Your task to perform on an android device: Open location settings Image 0: 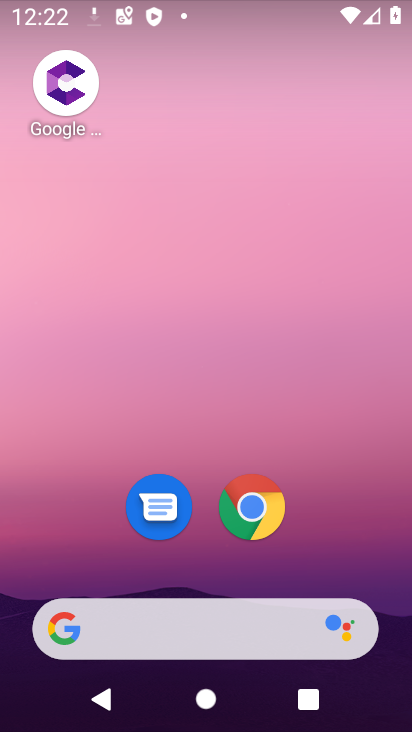
Step 0: drag from (206, 574) to (158, 75)
Your task to perform on an android device: Open location settings Image 1: 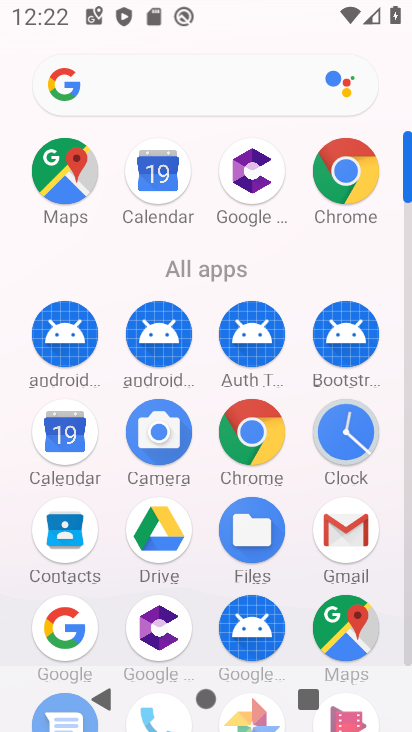
Step 1: drag from (189, 619) to (183, 220)
Your task to perform on an android device: Open location settings Image 2: 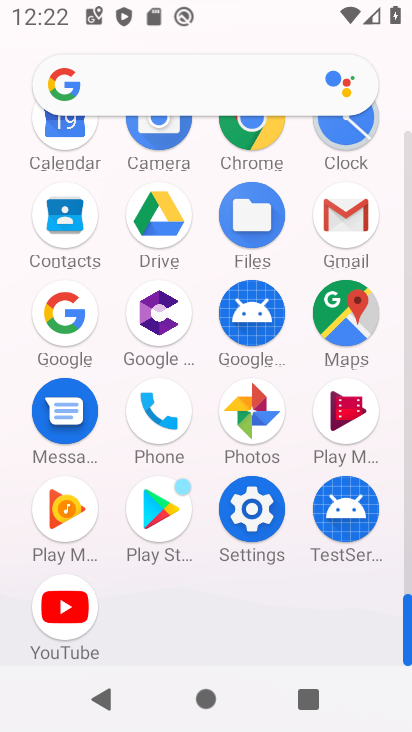
Step 2: click (257, 514)
Your task to perform on an android device: Open location settings Image 3: 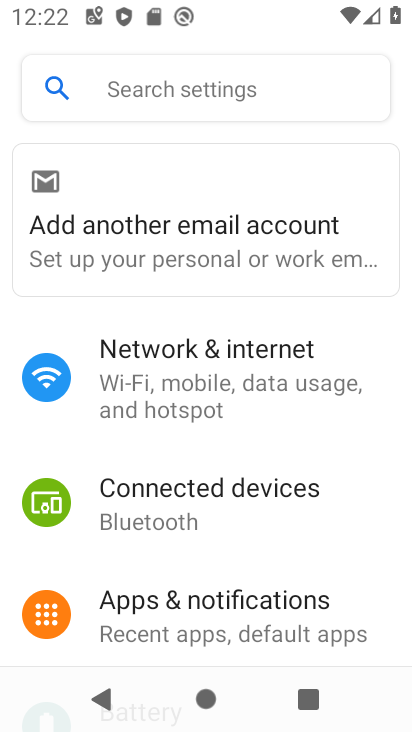
Step 3: drag from (230, 594) to (194, 79)
Your task to perform on an android device: Open location settings Image 4: 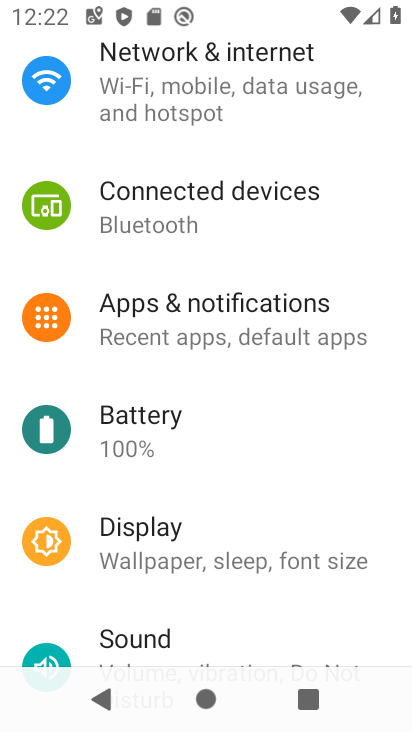
Step 4: drag from (243, 603) to (243, 159)
Your task to perform on an android device: Open location settings Image 5: 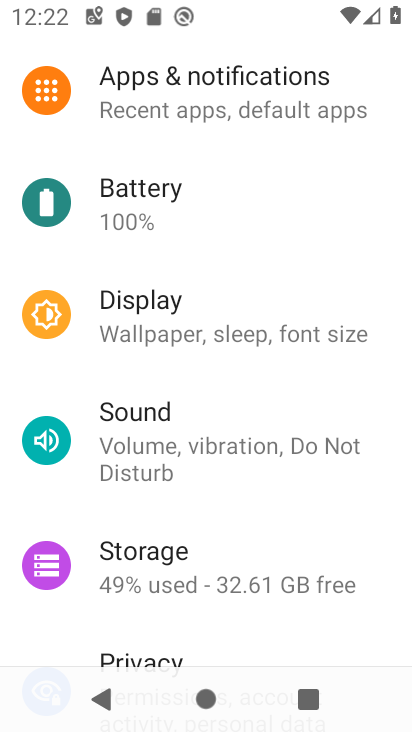
Step 5: drag from (241, 524) to (234, 77)
Your task to perform on an android device: Open location settings Image 6: 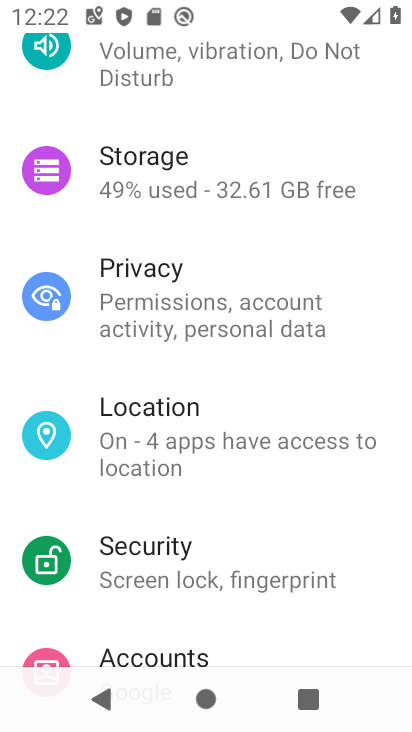
Step 6: click (232, 448)
Your task to perform on an android device: Open location settings Image 7: 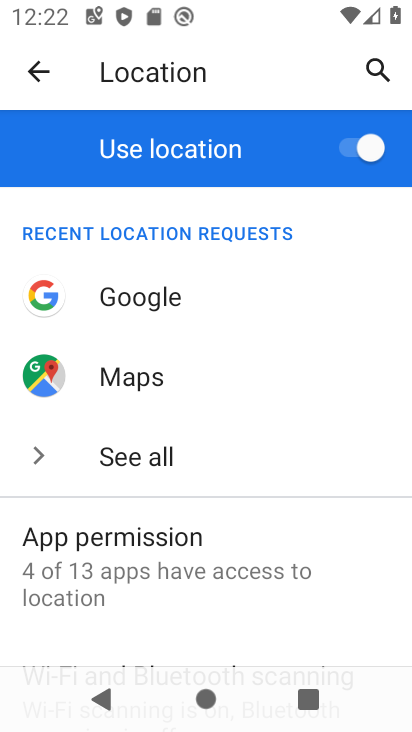
Step 7: task complete